Your task to perform on an android device: Open Amazon Image 0: 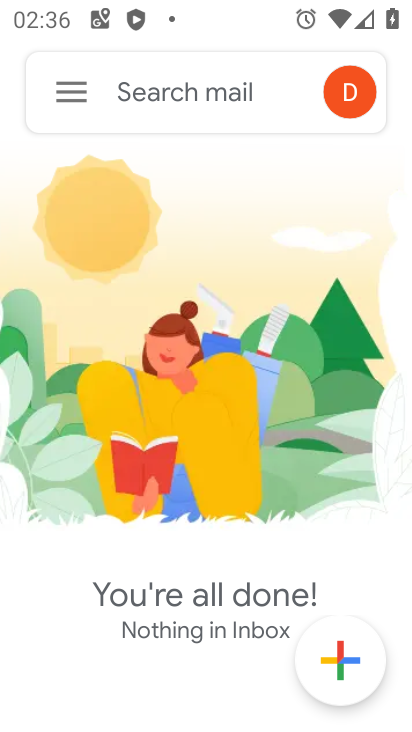
Step 0: press home button
Your task to perform on an android device: Open Amazon Image 1: 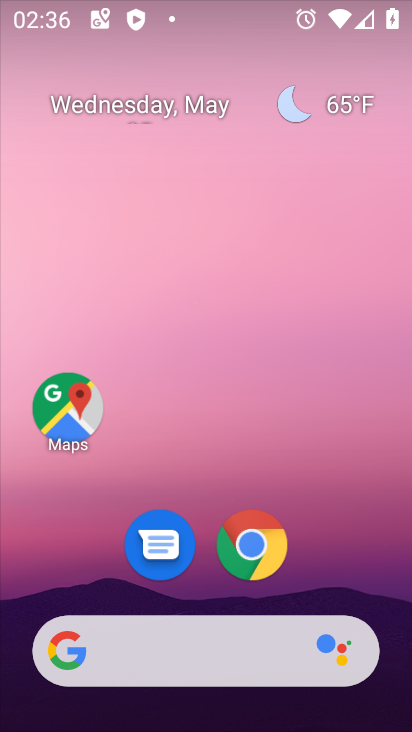
Step 1: click (269, 552)
Your task to perform on an android device: Open Amazon Image 2: 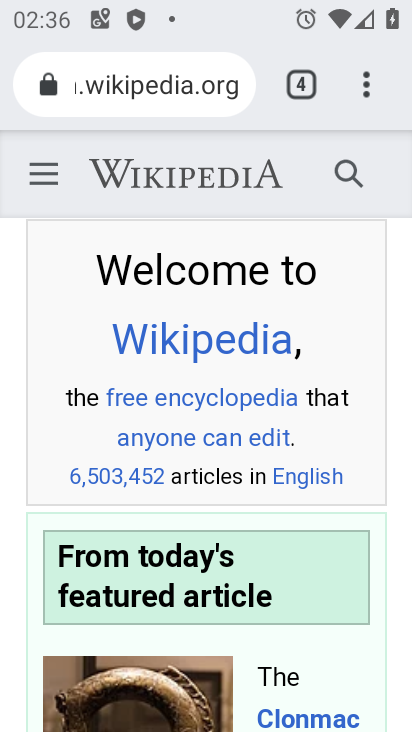
Step 2: click (296, 89)
Your task to perform on an android device: Open Amazon Image 3: 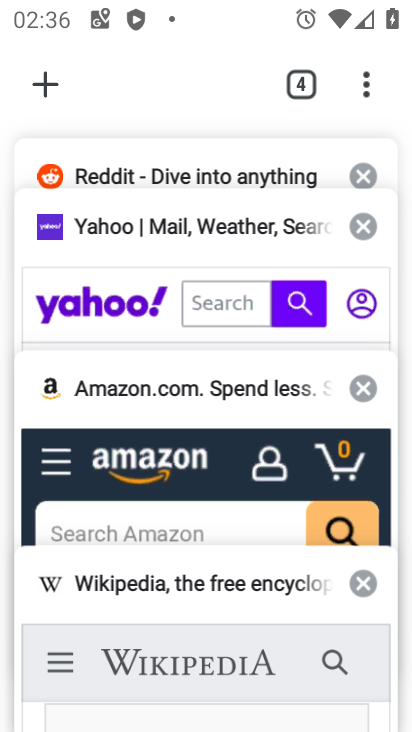
Step 3: click (165, 461)
Your task to perform on an android device: Open Amazon Image 4: 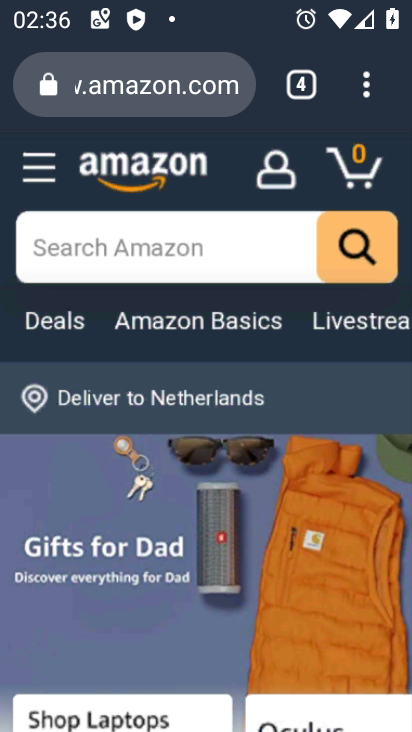
Step 4: task complete